Your task to perform on an android device: snooze an email in the gmail app Image 0: 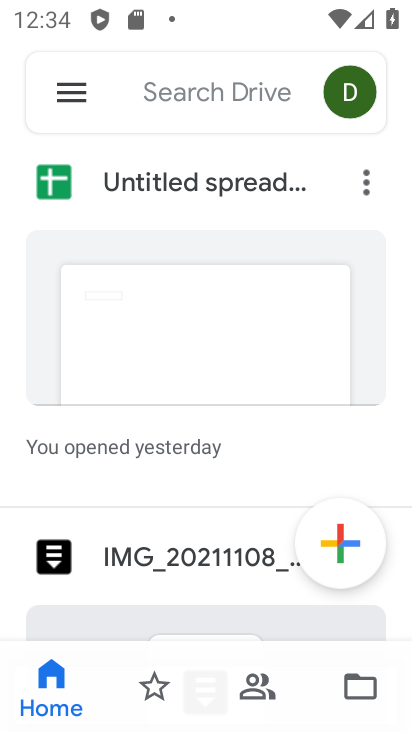
Step 0: press home button
Your task to perform on an android device: snooze an email in the gmail app Image 1: 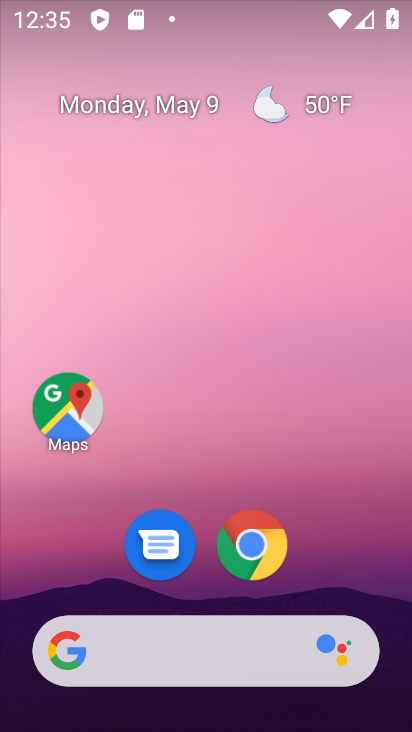
Step 1: drag from (213, 601) to (238, 147)
Your task to perform on an android device: snooze an email in the gmail app Image 2: 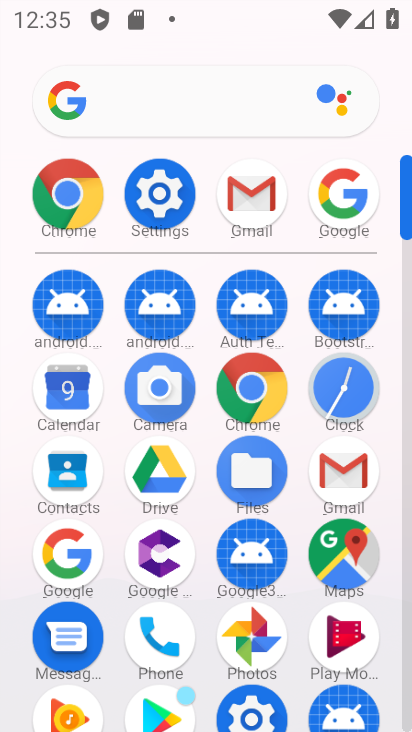
Step 2: click (253, 181)
Your task to perform on an android device: snooze an email in the gmail app Image 3: 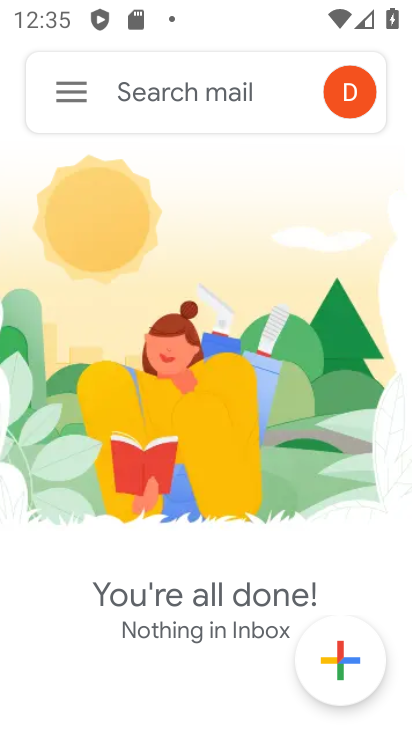
Step 3: click (77, 97)
Your task to perform on an android device: snooze an email in the gmail app Image 4: 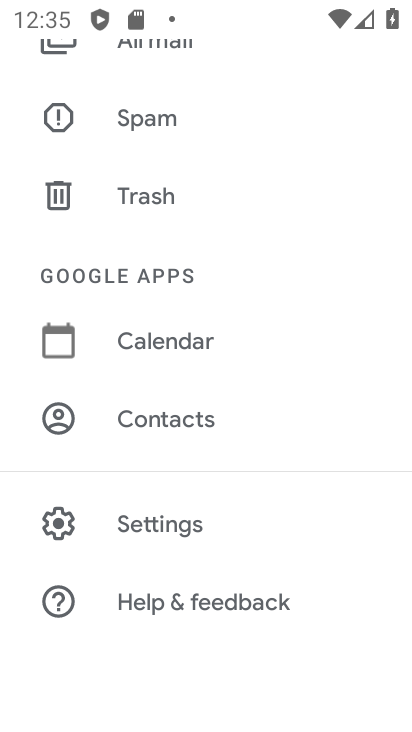
Step 4: drag from (219, 190) to (218, 470)
Your task to perform on an android device: snooze an email in the gmail app Image 5: 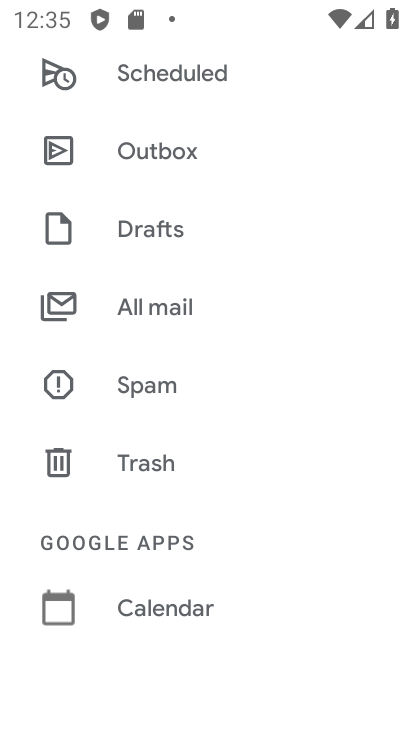
Step 5: drag from (241, 263) to (218, 731)
Your task to perform on an android device: snooze an email in the gmail app Image 6: 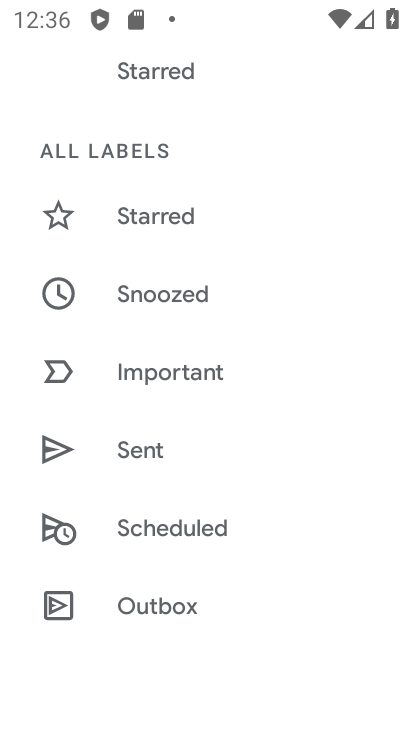
Step 6: click (166, 287)
Your task to perform on an android device: snooze an email in the gmail app Image 7: 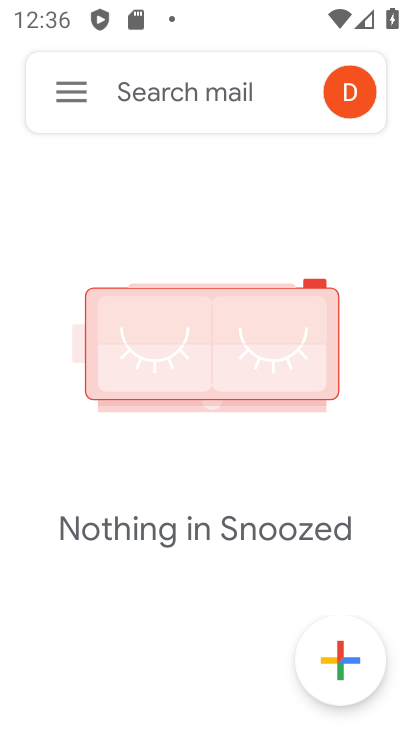
Step 7: click (73, 101)
Your task to perform on an android device: snooze an email in the gmail app Image 8: 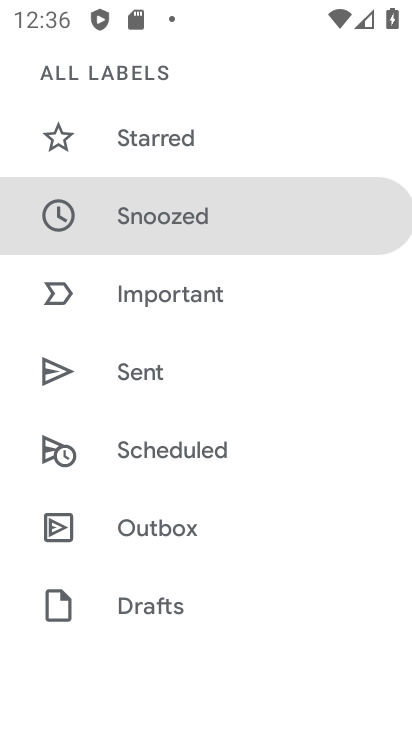
Step 8: drag from (152, 187) to (154, 501)
Your task to perform on an android device: snooze an email in the gmail app Image 9: 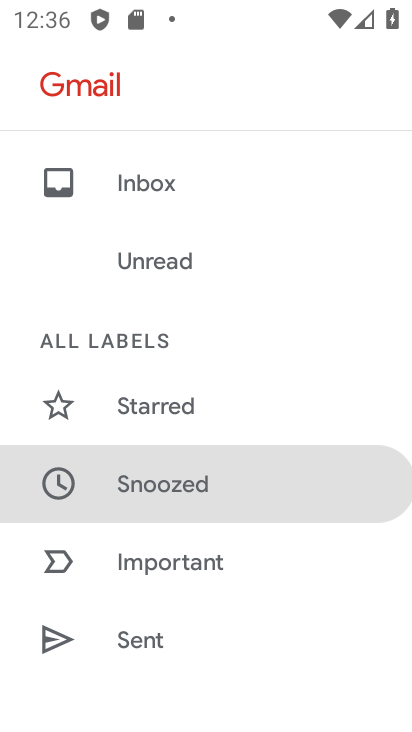
Step 9: click (157, 166)
Your task to perform on an android device: snooze an email in the gmail app Image 10: 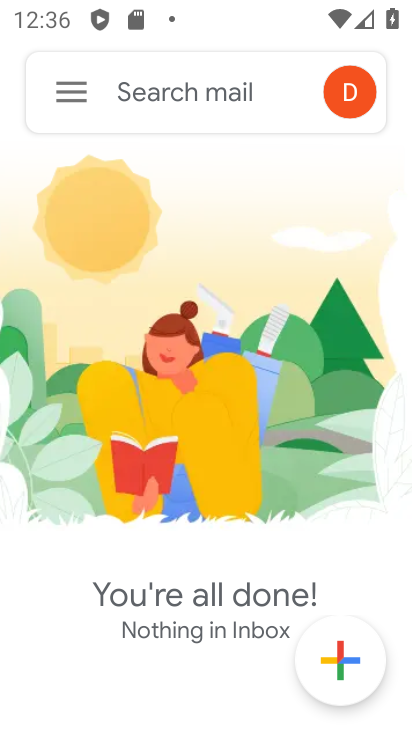
Step 10: task complete